Your task to perform on an android device: check the backup settings in the google photos Image 0: 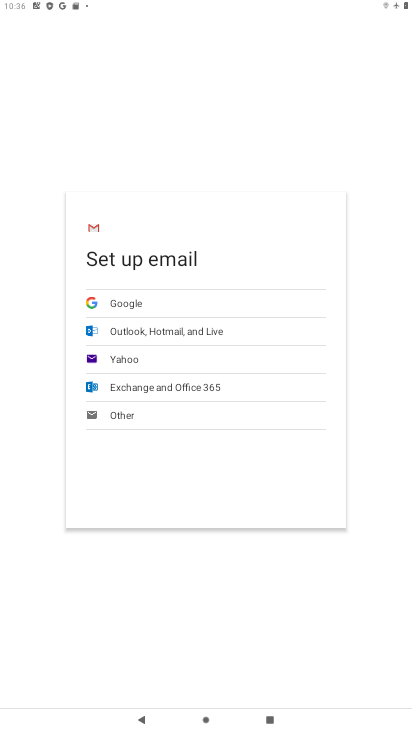
Step 0: press home button
Your task to perform on an android device: check the backup settings in the google photos Image 1: 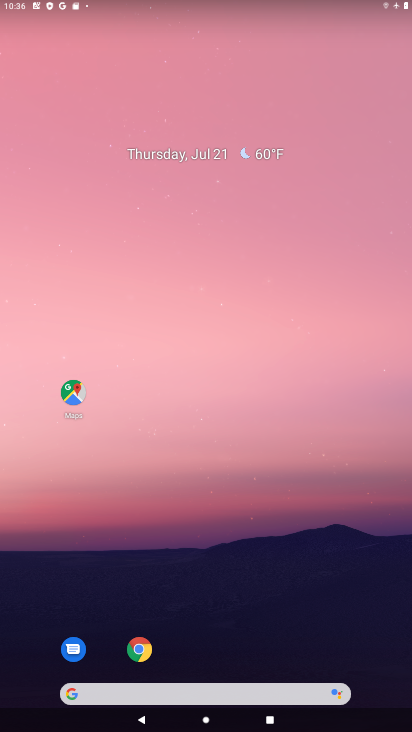
Step 1: drag from (189, 686) to (153, 256)
Your task to perform on an android device: check the backup settings in the google photos Image 2: 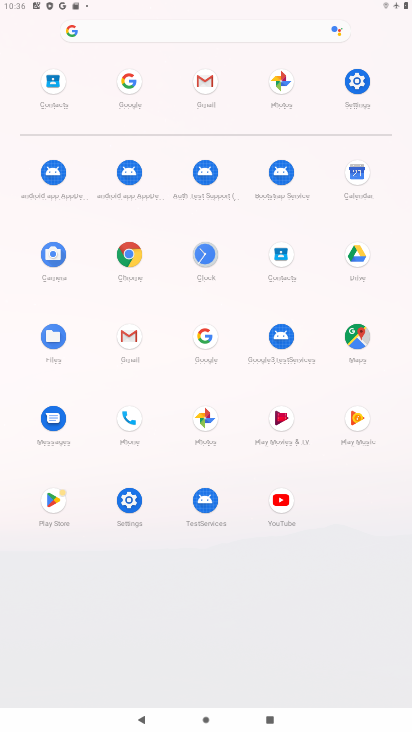
Step 2: click (204, 419)
Your task to perform on an android device: check the backup settings in the google photos Image 3: 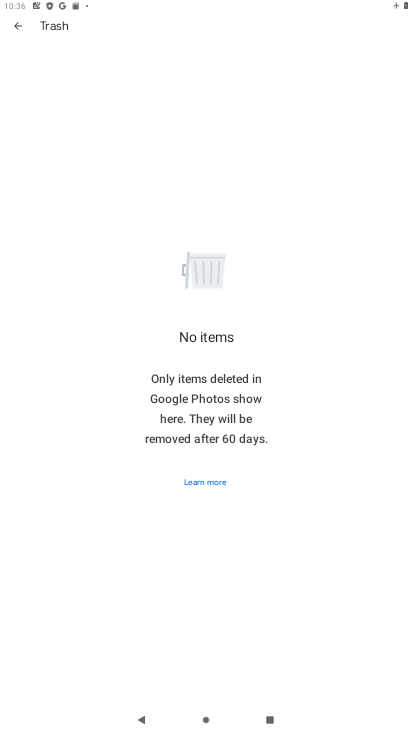
Step 3: press back button
Your task to perform on an android device: check the backup settings in the google photos Image 4: 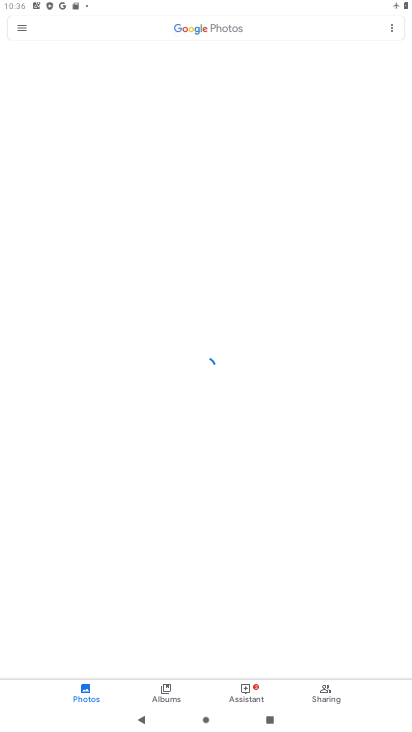
Step 4: click (20, 28)
Your task to perform on an android device: check the backup settings in the google photos Image 5: 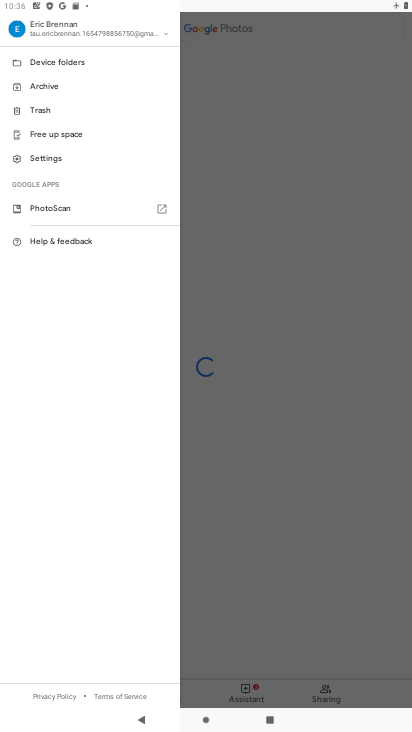
Step 5: click (44, 156)
Your task to perform on an android device: check the backup settings in the google photos Image 6: 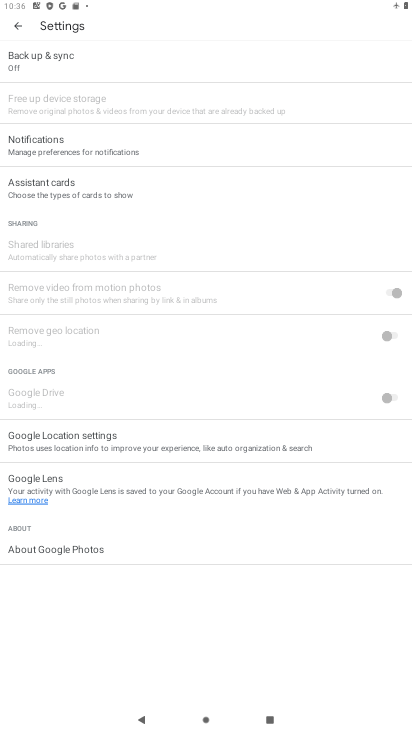
Step 6: click (49, 65)
Your task to perform on an android device: check the backup settings in the google photos Image 7: 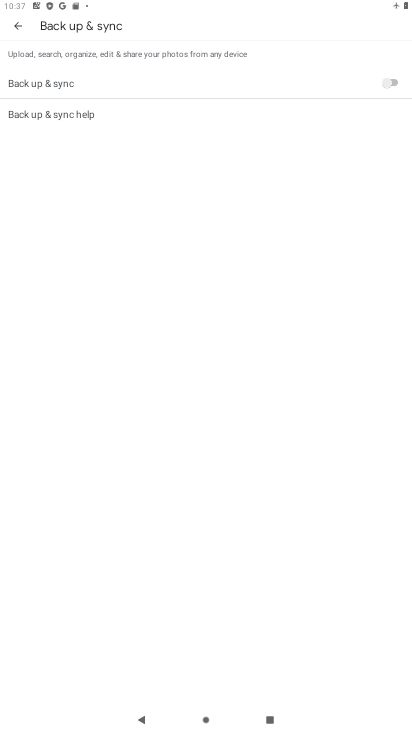
Step 7: task complete